Your task to perform on an android device: turn off translation in the chrome app Image 0: 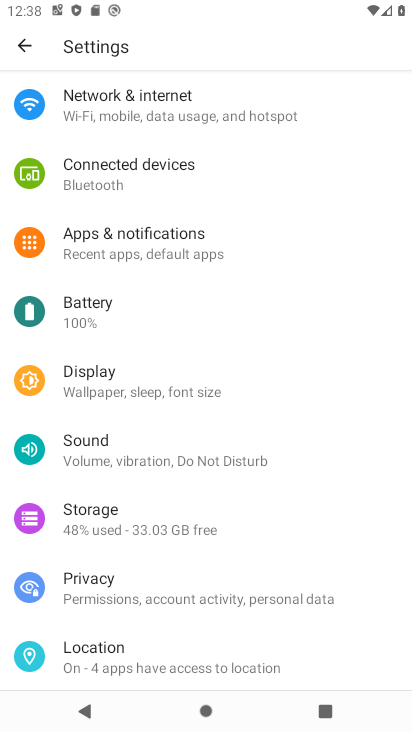
Step 0: press home button
Your task to perform on an android device: turn off translation in the chrome app Image 1: 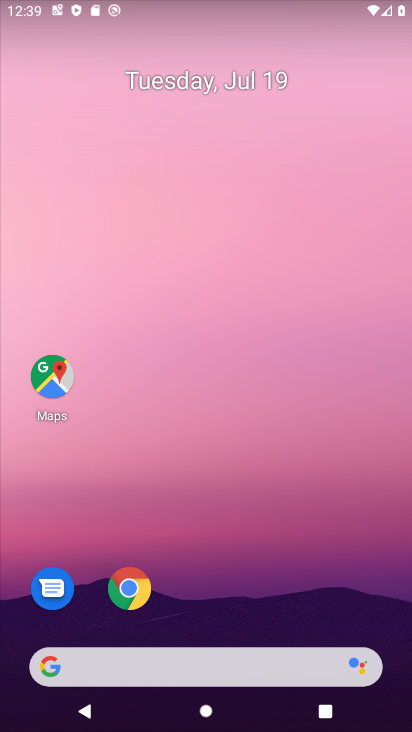
Step 1: drag from (248, 568) to (308, 0)
Your task to perform on an android device: turn off translation in the chrome app Image 2: 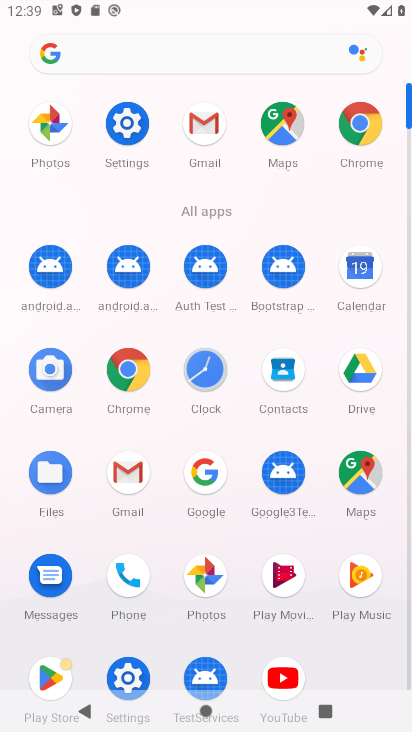
Step 2: click (359, 121)
Your task to perform on an android device: turn off translation in the chrome app Image 3: 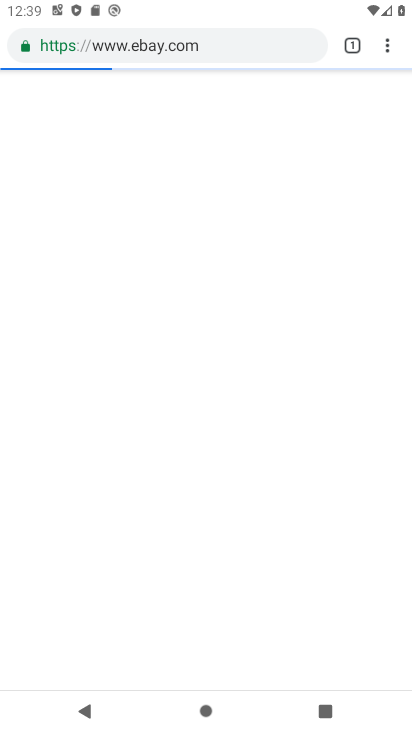
Step 3: drag from (387, 74) to (348, 181)
Your task to perform on an android device: turn off translation in the chrome app Image 4: 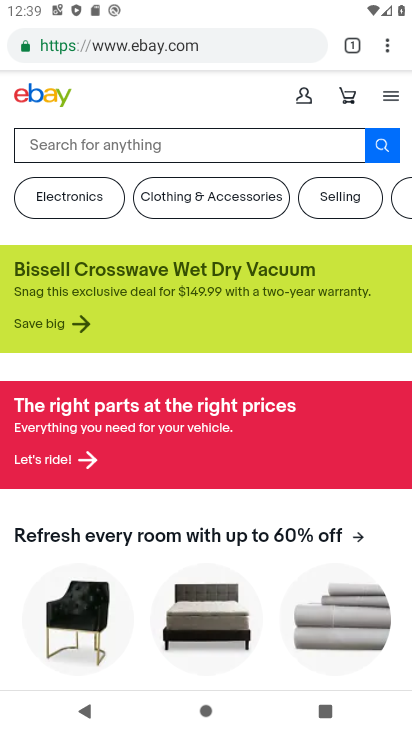
Step 4: click (389, 51)
Your task to perform on an android device: turn off translation in the chrome app Image 5: 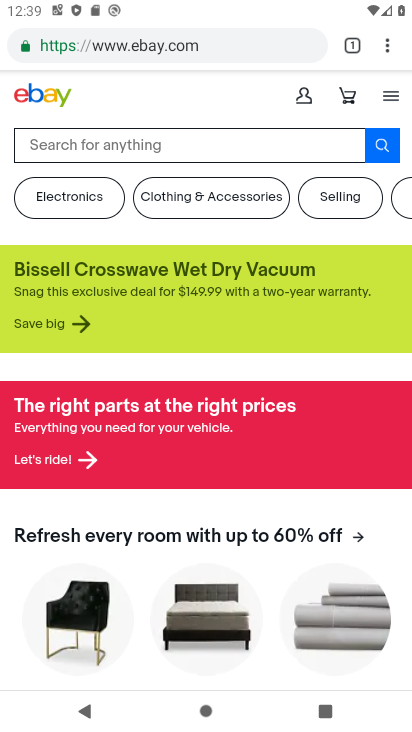
Step 5: drag from (395, 56) to (289, 553)
Your task to perform on an android device: turn off translation in the chrome app Image 6: 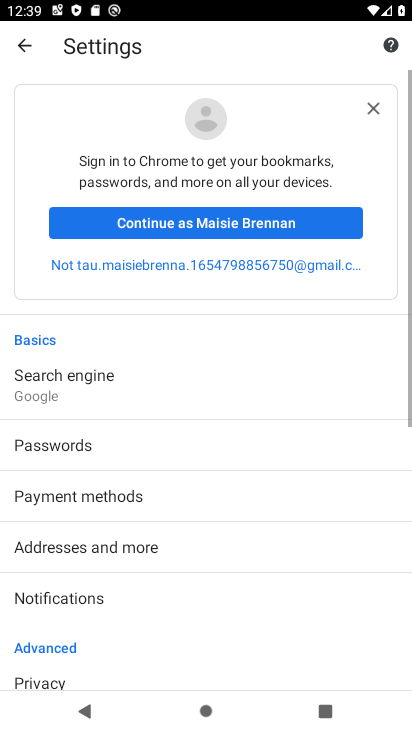
Step 6: drag from (168, 625) to (292, 107)
Your task to perform on an android device: turn off translation in the chrome app Image 7: 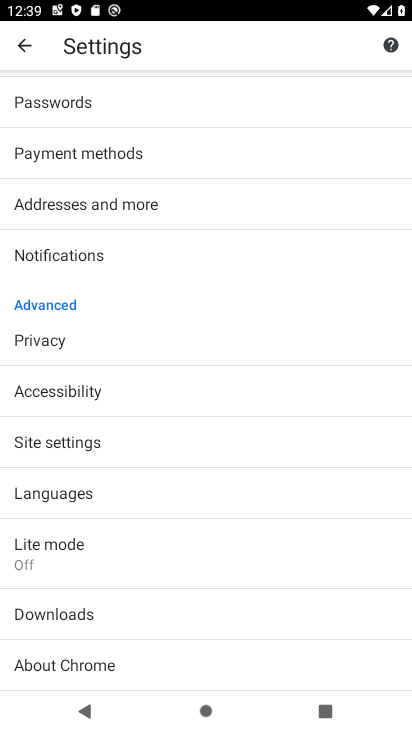
Step 7: click (56, 504)
Your task to perform on an android device: turn off translation in the chrome app Image 8: 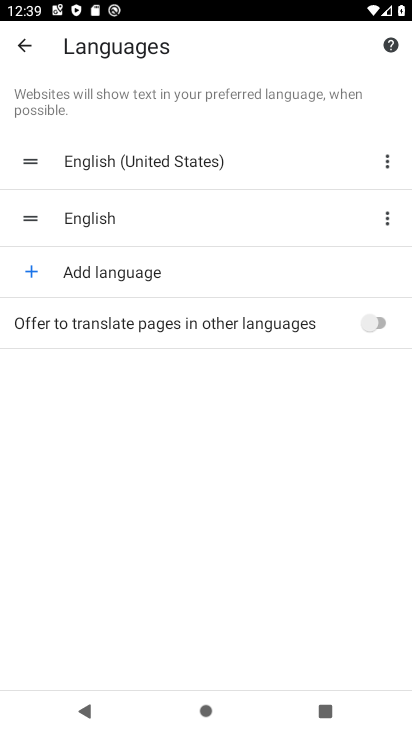
Step 8: task complete